Your task to perform on an android device: Play the last video I watched on Youtube Image 0: 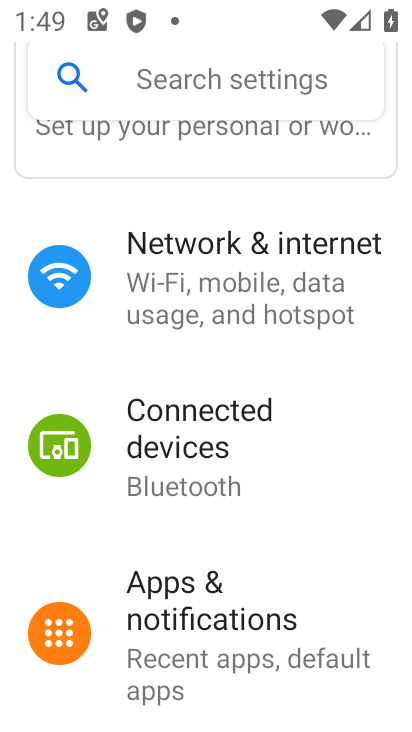
Step 0: press home button
Your task to perform on an android device: Play the last video I watched on Youtube Image 1: 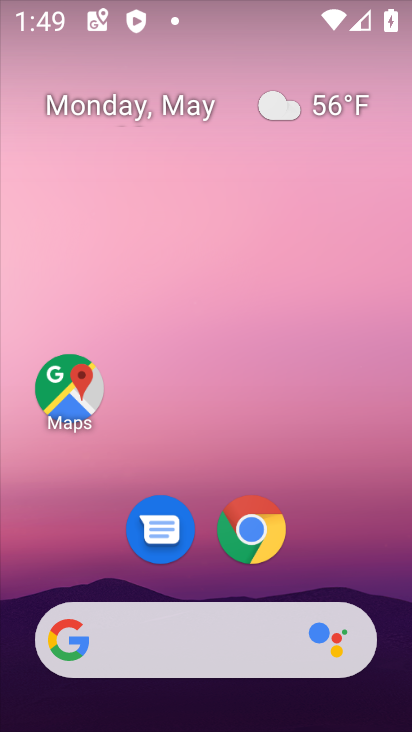
Step 1: drag from (205, 570) to (279, 15)
Your task to perform on an android device: Play the last video I watched on Youtube Image 2: 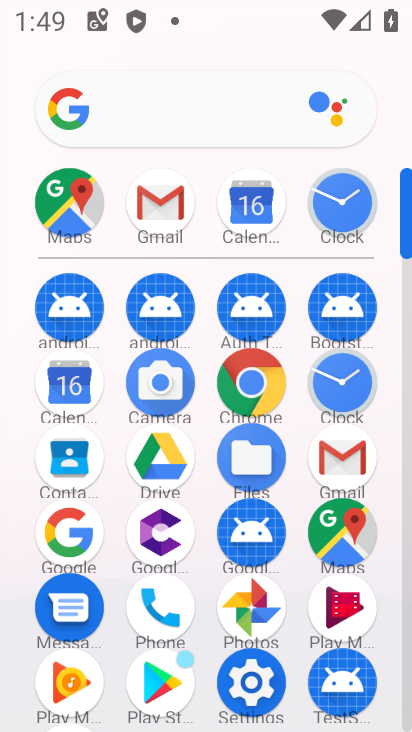
Step 2: drag from (201, 666) to (246, 327)
Your task to perform on an android device: Play the last video I watched on Youtube Image 3: 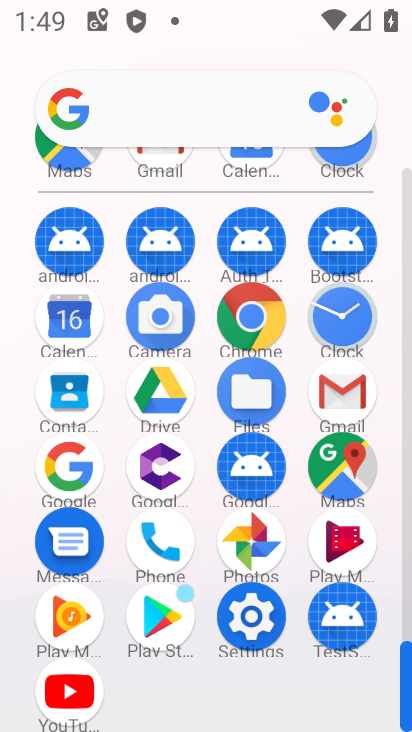
Step 3: click (58, 687)
Your task to perform on an android device: Play the last video I watched on Youtube Image 4: 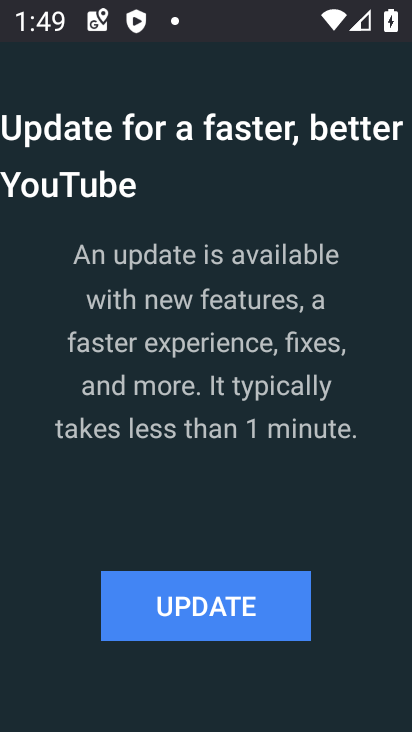
Step 4: click (150, 613)
Your task to perform on an android device: Play the last video I watched on Youtube Image 5: 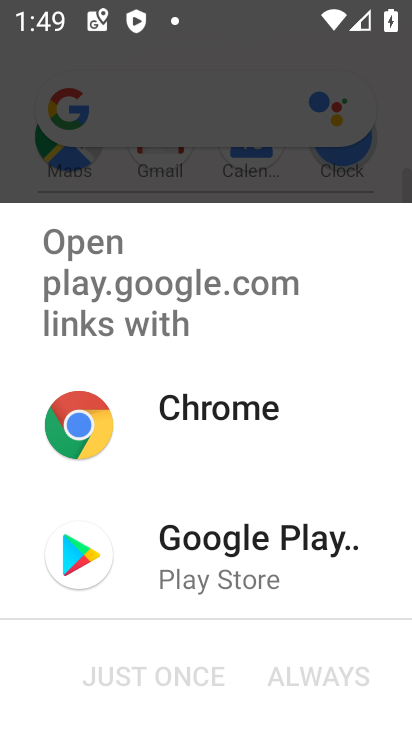
Step 5: click (198, 539)
Your task to perform on an android device: Play the last video I watched on Youtube Image 6: 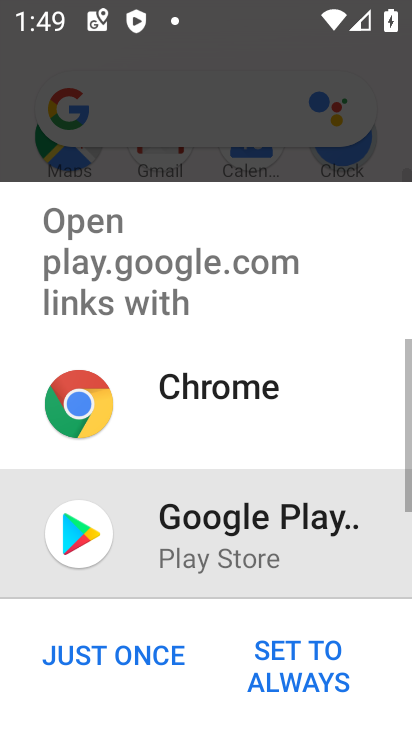
Step 6: click (43, 660)
Your task to perform on an android device: Play the last video I watched on Youtube Image 7: 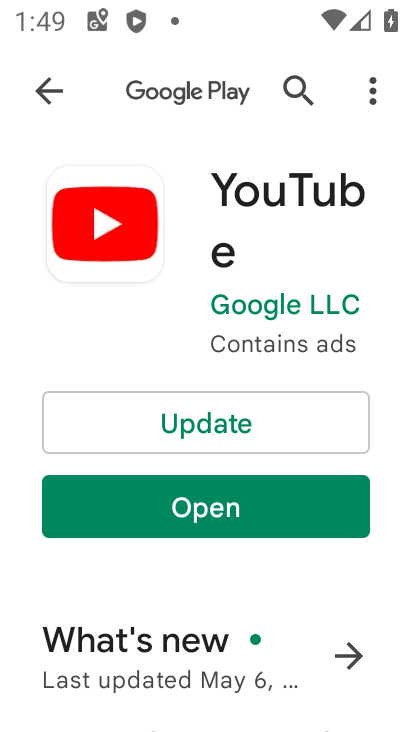
Step 7: click (184, 417)
Your task to perform on an android device: Play the last video I watched on Youtube Image 8: 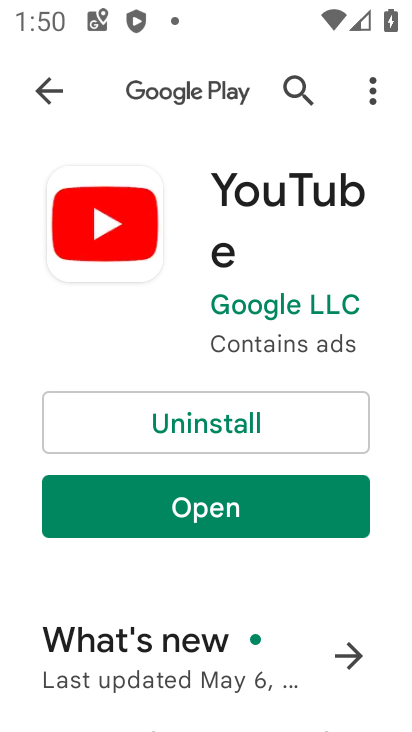
Step 8: click (168, 517)
Your task to perform on an android device: Play the last video I watched on Youtube Image 9: 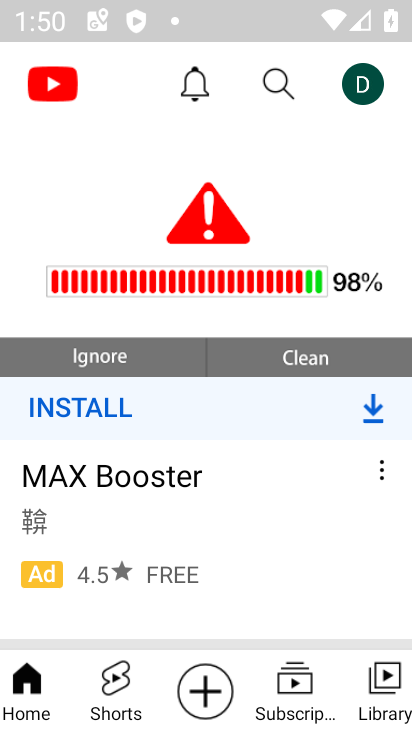
Step 9: click (374, 694)
Your task to perform on an android device: Play the last video I watched on Youtube Image 10: 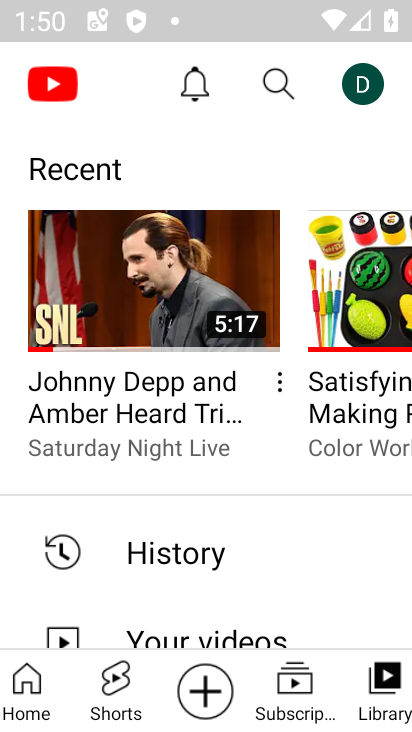
Step 10: click (150, 329)
Your task to perform on an android device: Play the last video I watched on Youtube Image 11: 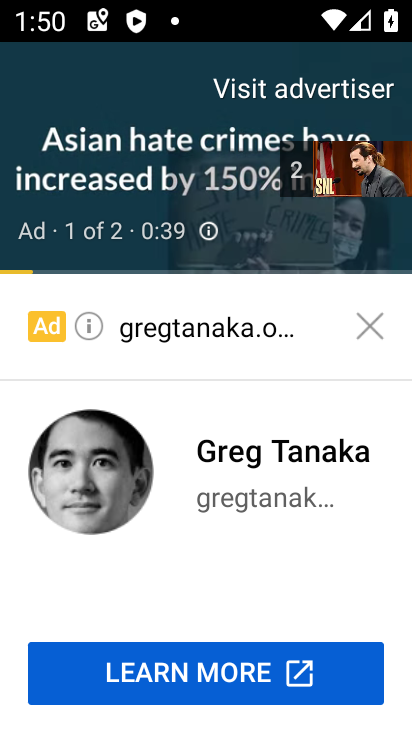
Step 11: task complete